Your task to perform on an android device: Open Chrome and go to the settings page Image 0: 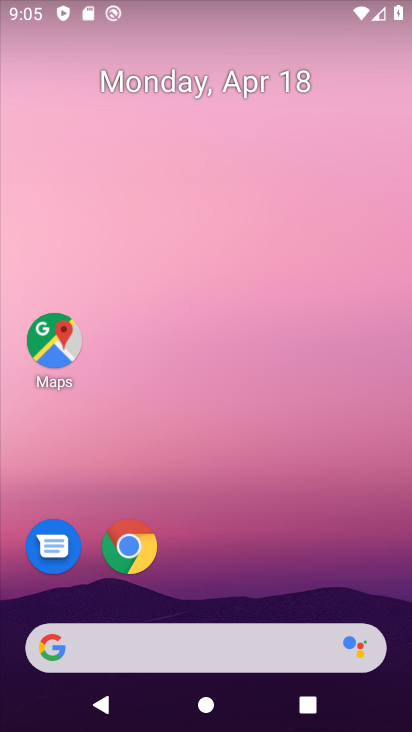
Step 0: click (131, 537)
Your task to perform on an android device: Open Chrome and go to the settings page Image 1: 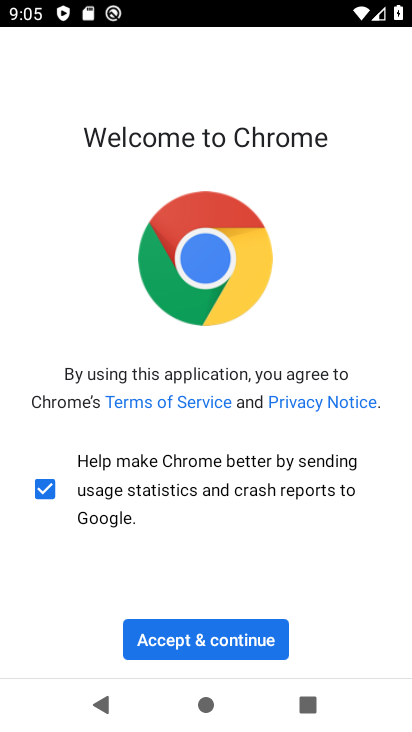
Step 1: click (225, 625)
Your task to perform on an android device: Open Chrome and go to the settings page Image 2: 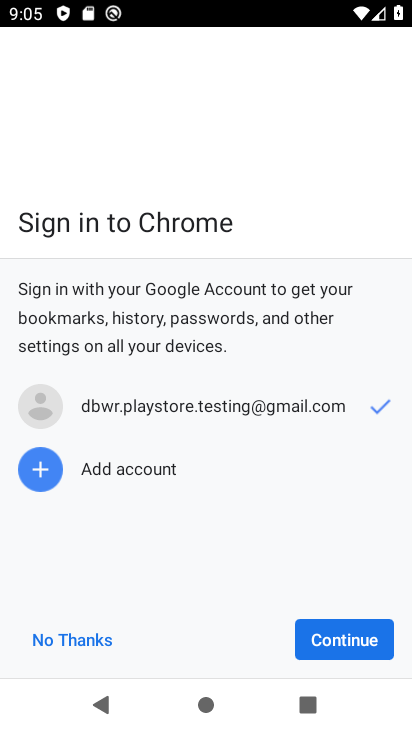
Step 2: click (310, 629)
Your task to perform on an android device: Open Chrome and go to the settings page Image 3: 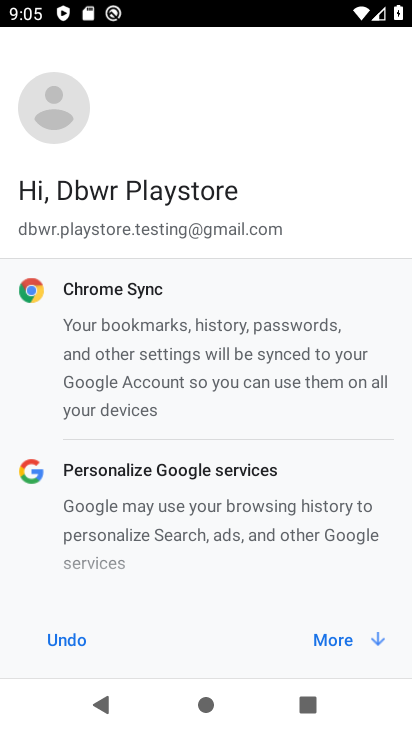
Step 3: click (319, 632)
Your task to perform on an android device: Open Chrome and go to the settings page Image 4: 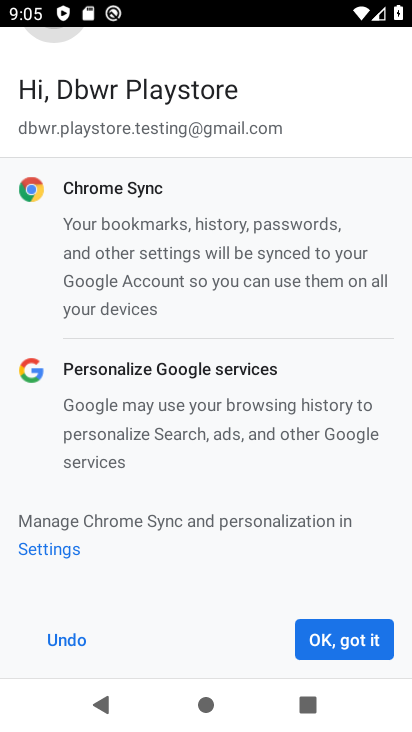
Step 4: click (320, 631)
Your task to perform on an android device: Open Chrome and go to the settings page Image 5: 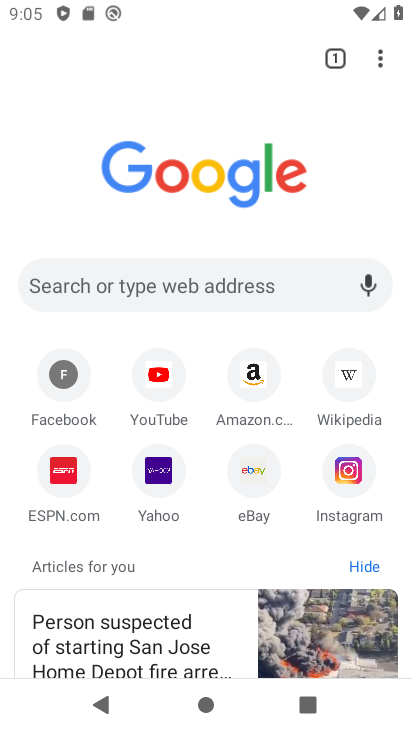
Step 5: click (384, 52)
Your task to perform on an android device: Open Chrome and go to the settings page Image 6: 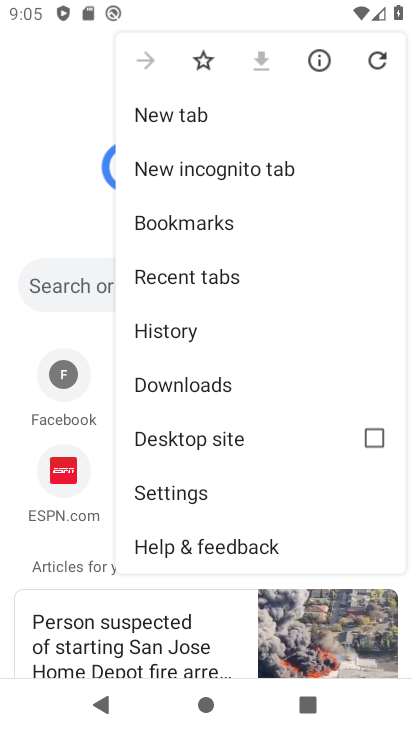
Step 6: click (199, 494)
Your task to perform on an android device: Open Chrome and go to the settings page Image 7: 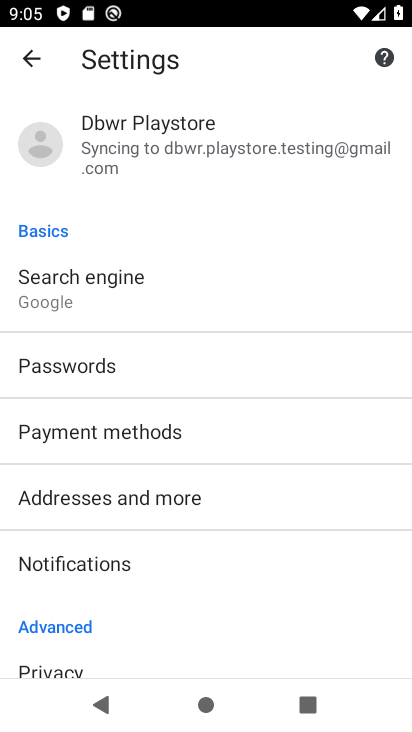
Step 7: task complete